Your task to perform on an android device: open app "Google Sheets" Image 0: 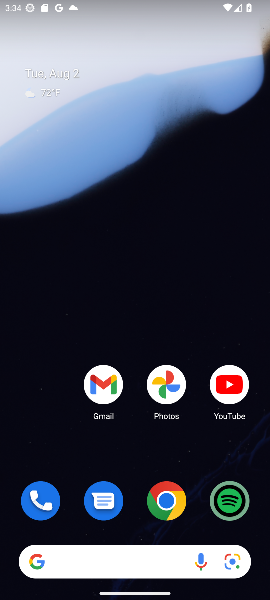
Step 0: drag from (129, 471) to (106, 0)
Your task to perform on an android device: open app "Google Sheets" Image 1: 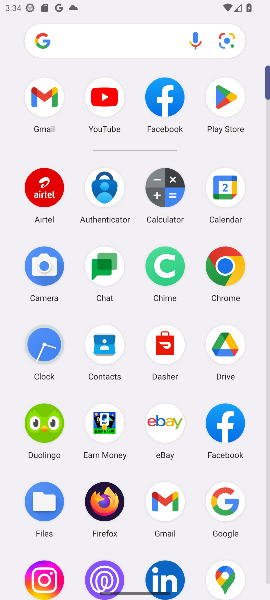
Step 1: click (227, 98)
Your task to perform on an android device: open app "Google Sheets" Image 2: 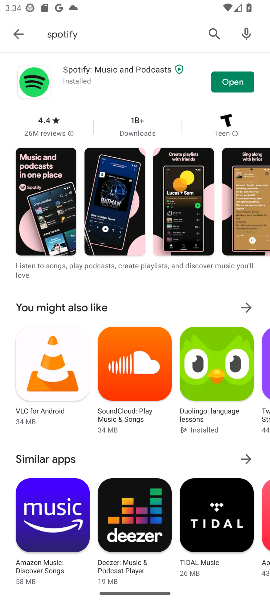
Step 2: click (213, 36)
Your task to perform on an android device: open app "Google Sheets" Image 3: 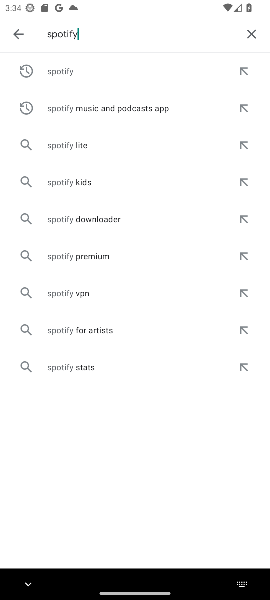
Step 3: click (246, 27)
Your task to perform on an android device: open app "Google Sheets" Image 4: 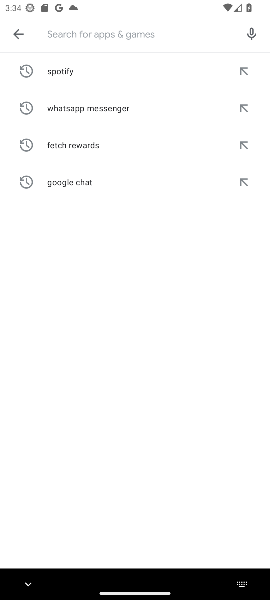
Step 4: type "Google Sheets"
Your task to perform on an android device: open app "Google Sheets" Image 5: 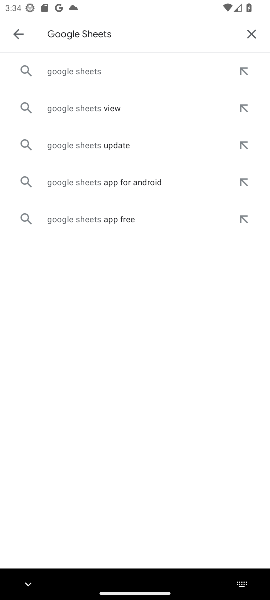
Step 5: click (91, 78)
Your task to perform on an android device: open app "Google Sheets" Image 6: 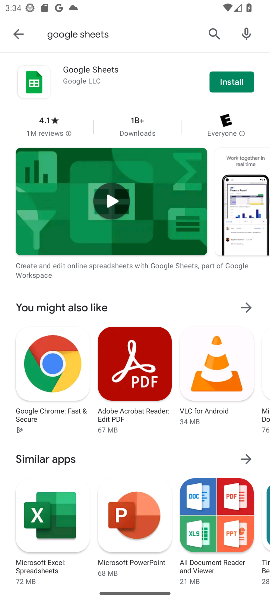
Step 6: task complete